Your task to perform on an android device: turn on the 12-hour format for clock Image 0: 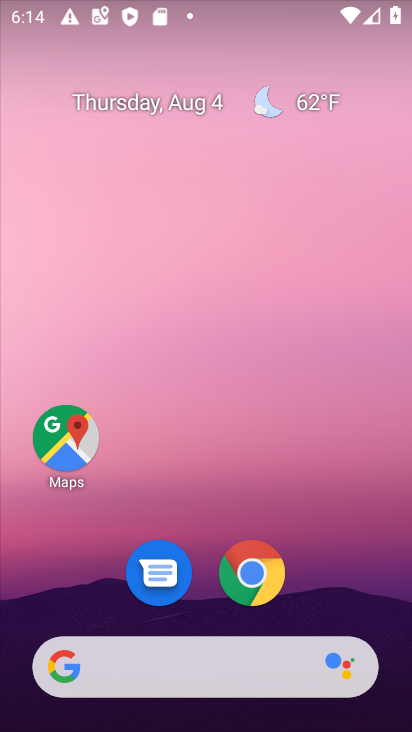
Step 0: drag from (225, 499) to (266, 99)
Your task to perform on an android device: turn on the 12-hour format for clock Image 1: 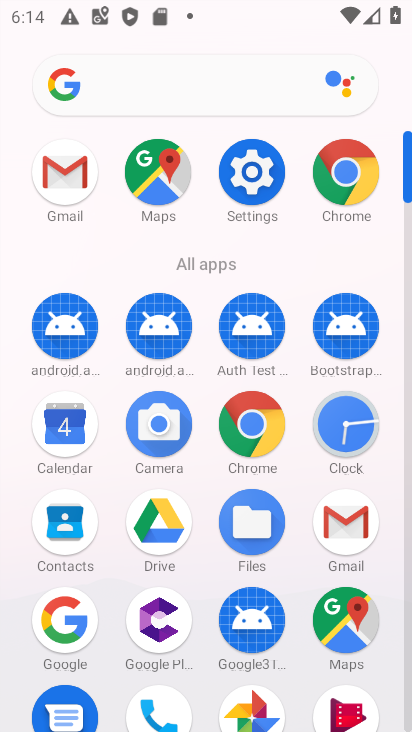
Step 1: drag from (302, 582) to (341, 287)
Your task to perform on an android device: turn on the 12-hour format for clock Image 2: 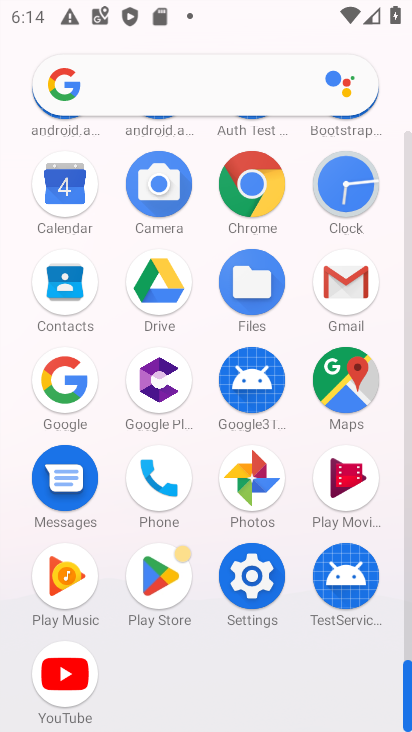
Step 2: click (252, 570)
Your task to perform on an android device: turn on the 12-hour format for clock Image 3: 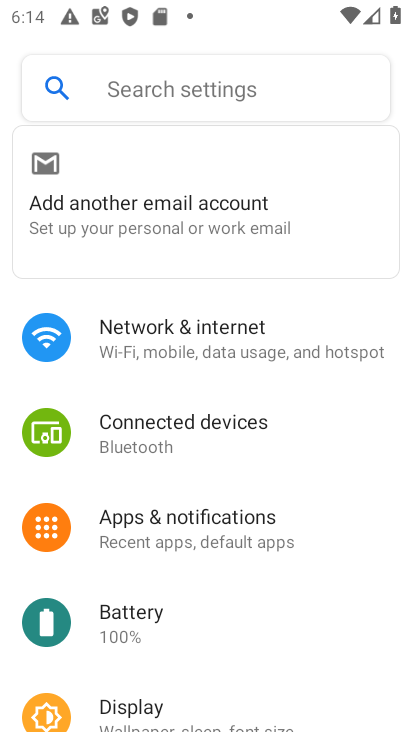
Step 3: drag from (321, 675) to (318, 125)
Your task to perform on an android device: turn on the 12-hour format for clock Image 4: 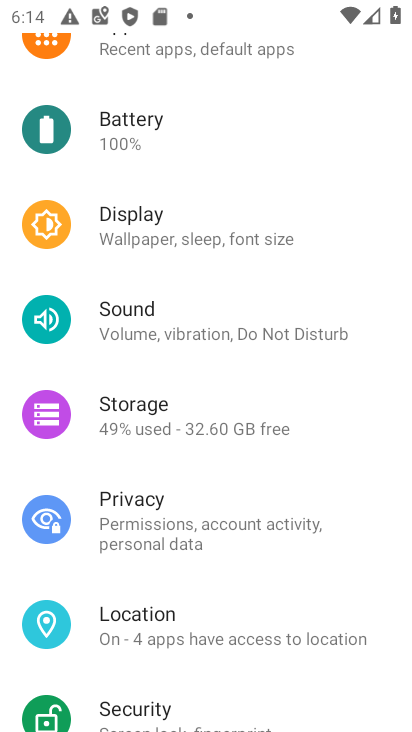
Step 4: drag from (256, 695) to (273, 185)
Your task to perform on an android device: turn on the 12-hour format for clock Image 5: 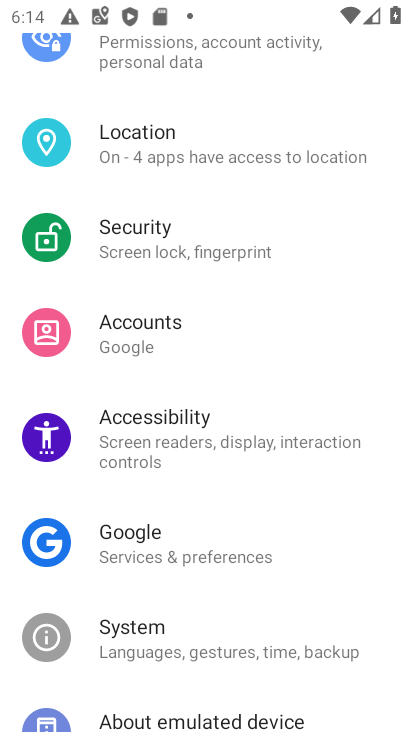
Step 5: drag from (236, 675) to (261, 299)
Your task to perform on an android device: turn on the 12-hour format for clock Image 6: 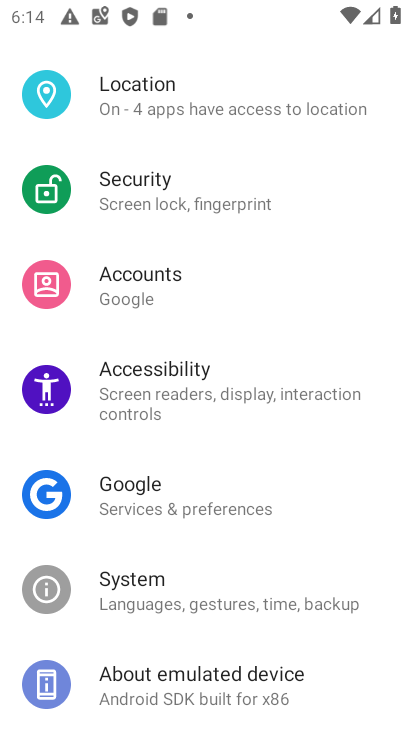
Step 6: click (139, 590)
Your task to perform on an android device: turn on the 12-hour format for clock Image 7: 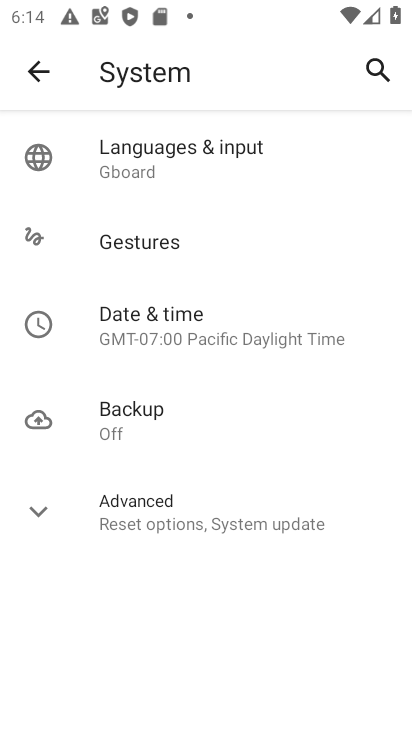
Step 7: click (180, 329)
Your task to perform on an android device: turn on the 12-hour format for clock Image 8: 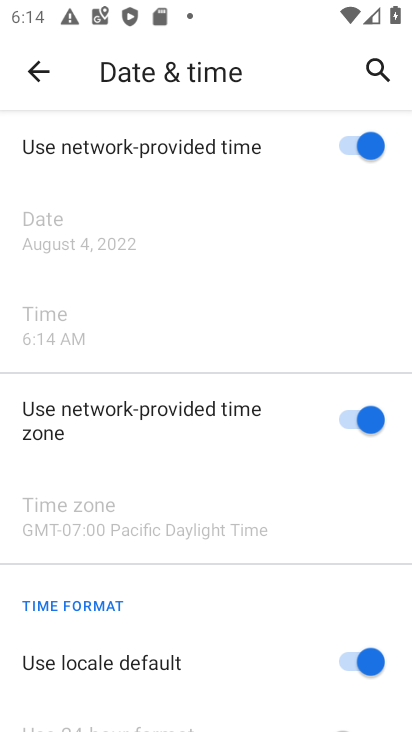
Step 8: drag from (262, 653) to (237, 137)
Your task to perform on an android device: turn on the 12-hour format for clock Image 9: 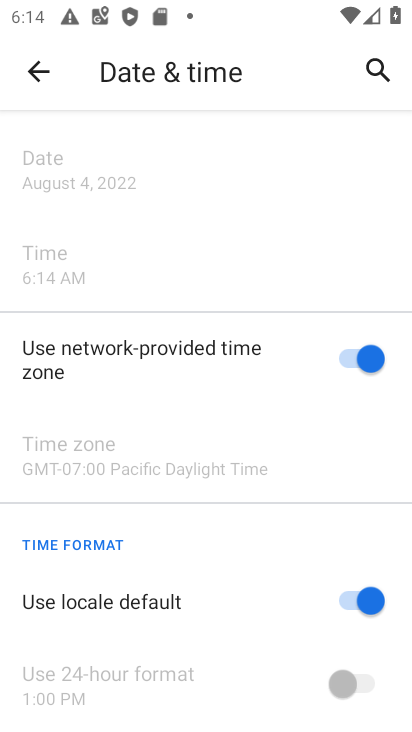
Step 9: click (380, 600)
Your task to perform on an android device: turn on the 12-hour format for clock Image 10: 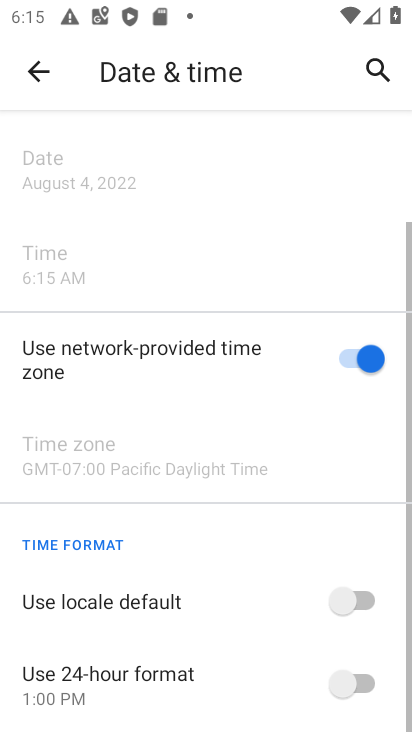
Step 10: task complete